Your task to perform on an android device: make emails show in primary in the gmail app Image 0: 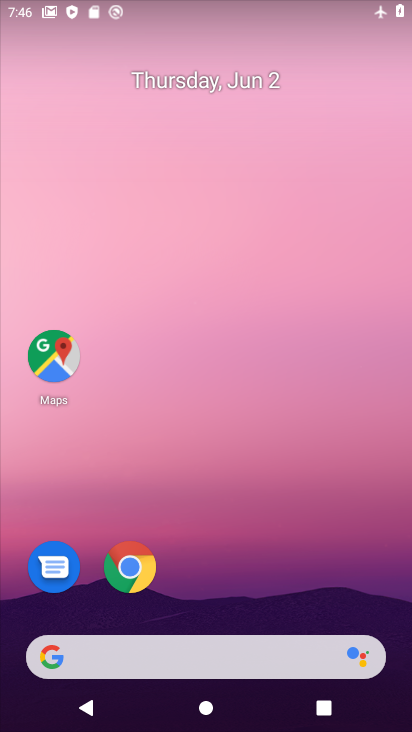
Step 0: drag from (237, 554) to (177, 216)
Your task to perform on an android device: make emails show in primary in the gmail app Image 1: 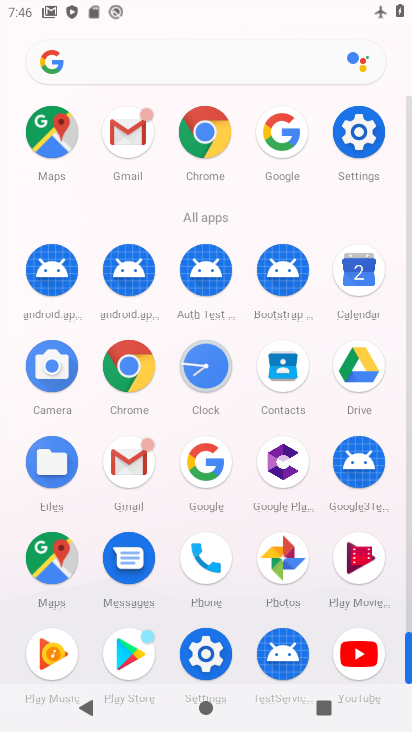
Step 1: click (123, 127)
Your task to perform on an android device: make emails show in primary in the gmail app Image 2: 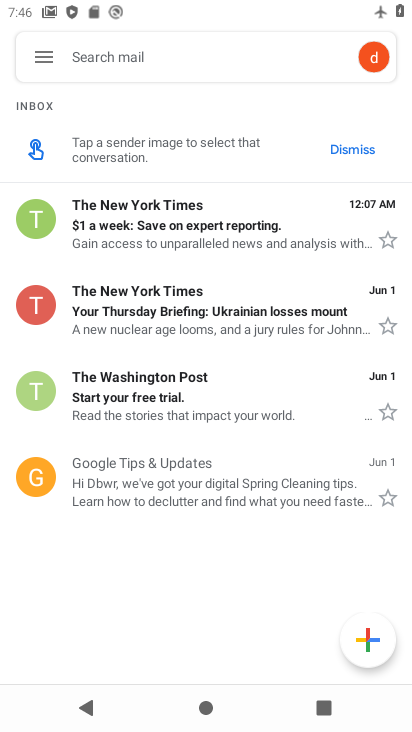
Step 2: click (40, 54)
Your task to perform on an android device: make emails show in primary in the gmail app Image 3: 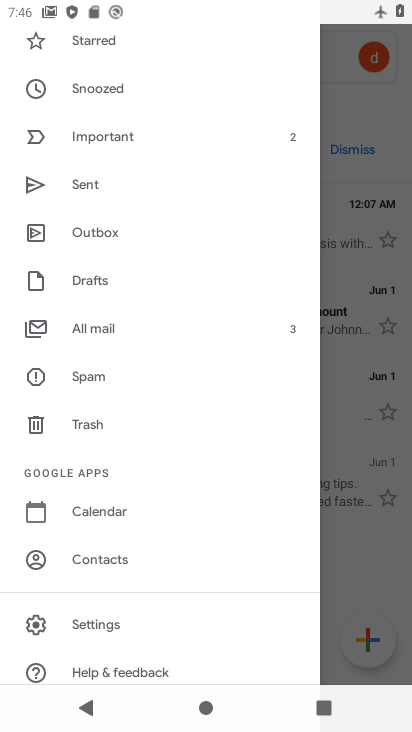
Step 3: drag from (117, 123) to (52, 387)
Your task to perform on an android device: make emails show in primary in the gmail app Image 4: 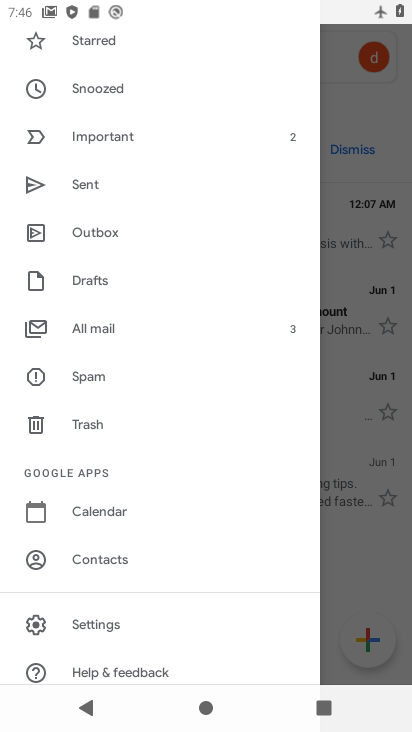
Step 4: drag from (92, 164) to (154, 360)
Your task to perform on an android device: make emails show in primary in the gmail app Image 5: 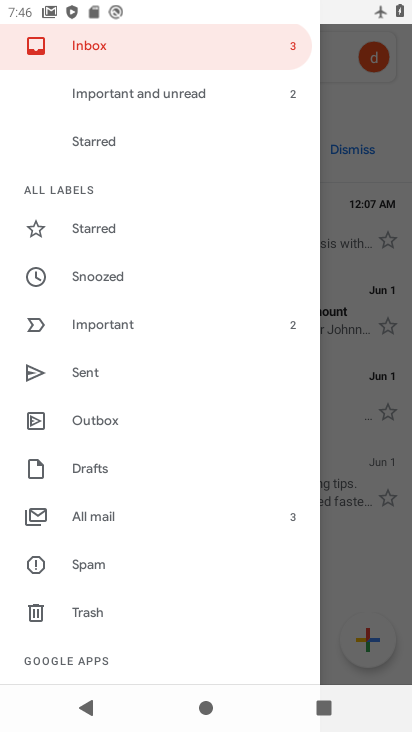
Step 5: drag from (88, 483) to (139, 391)
Your task to perform on an android device: make emails show in primary in the gmail app Image 6: 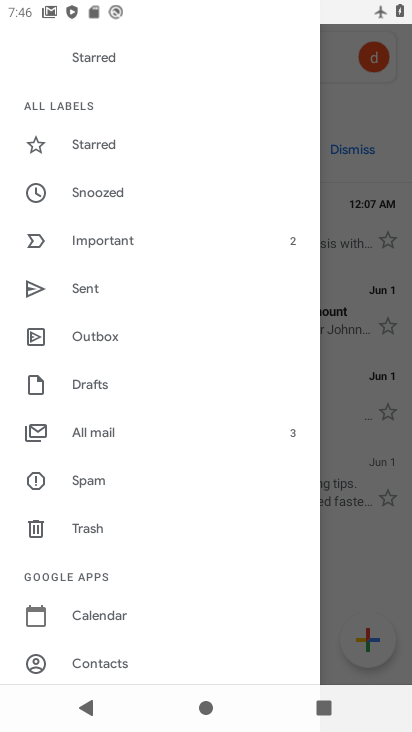
Step 6: drag from (91, 498) to (159, 401)
Your task to perform on an android device: make emails show in primary in the gmail app Image 7: 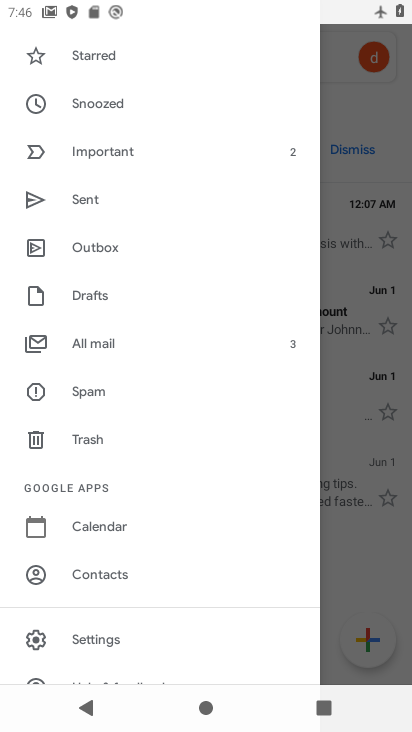
Step 7: drag from (102, 539) to (193, 435)
Your task to perform on an android device: make emails show in primary in the gmail app Image 8: 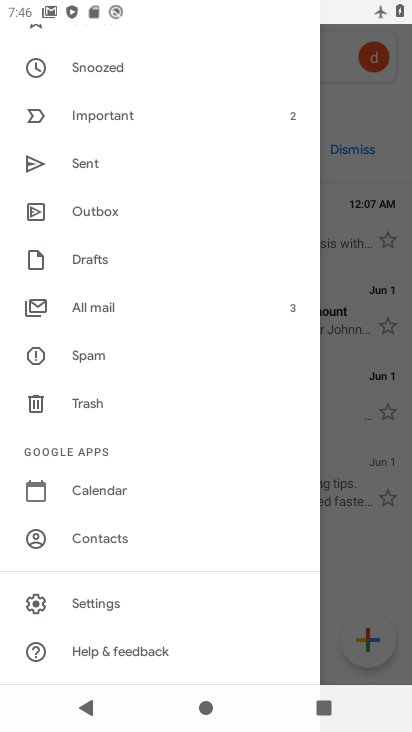
Step 8: click (115, 607)
Your task to perform on an android device: make emails show in primary in the gmail app Image 9: 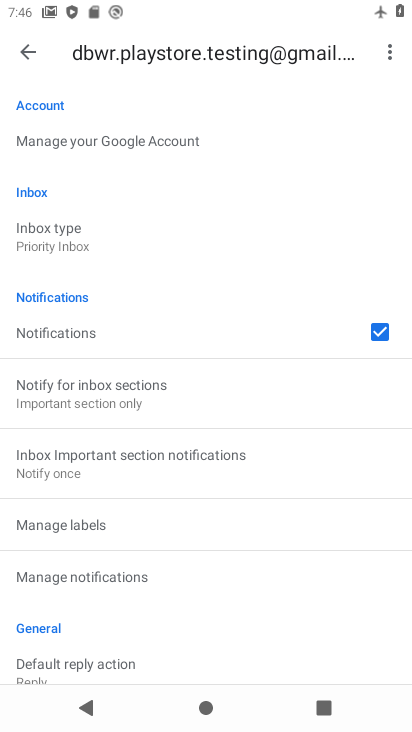
Step 9: click (73, 237)
Your task to perform on an android device: make emails show in primary in the gmail app Image 10: 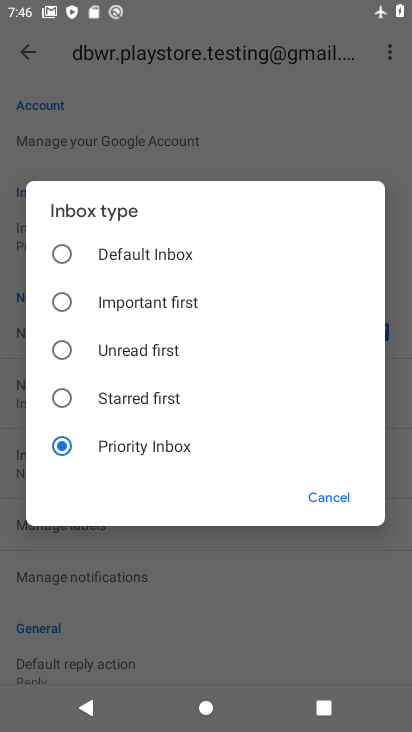
Step 10: click (65, 250)
Your task to perform on an android device: make emails show in primary in the gmail app Image 11: 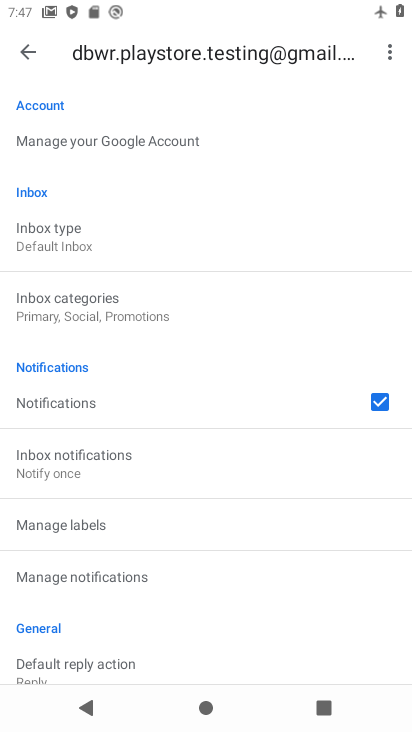
Step 11: click (92, 309)
Your task to perform on an android device: make emails show in primary in the gmail app Image 12: 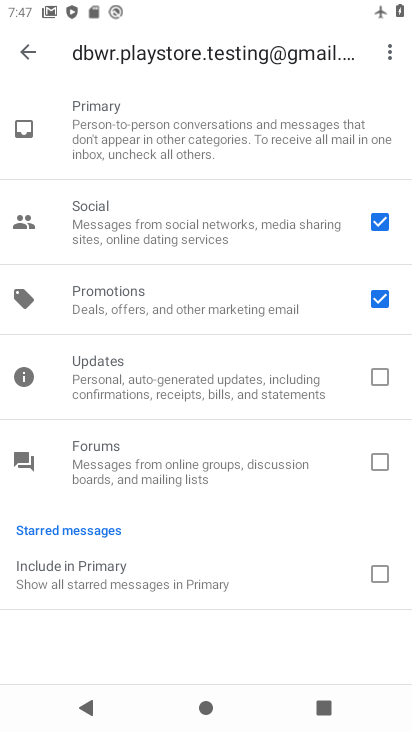
Step 12: click (384, 222)
Your task to perform on an android device: make emails show in primary in the gmail app Image 13: 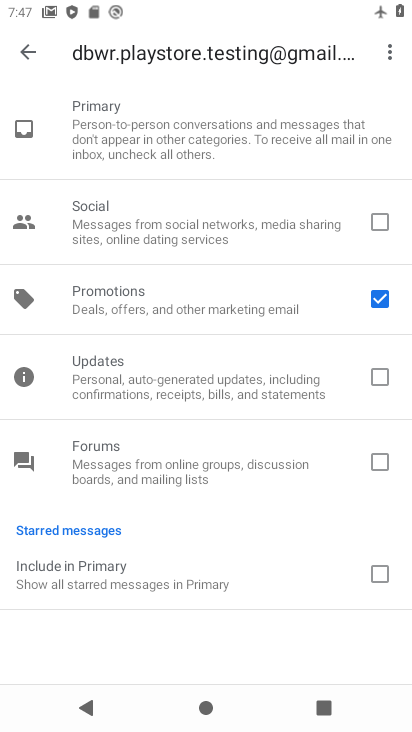
Step 13: click (379, 302)
Your task to perform on an android device: make emails show in primary in the gmail app Image 14: 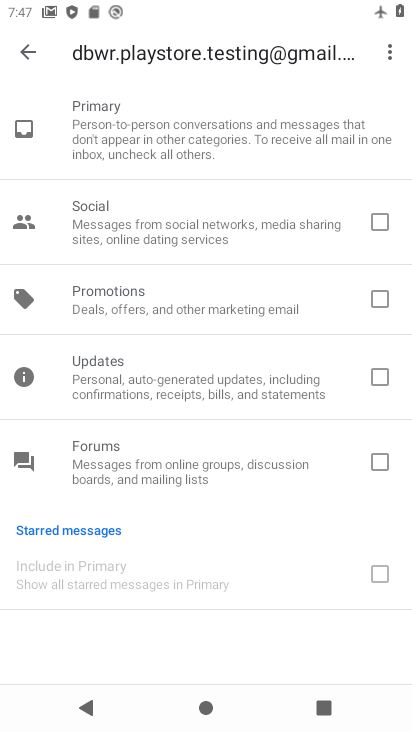
Step 14: task complete